Your task to perform on an android device: Open Reddit.com Image 0: 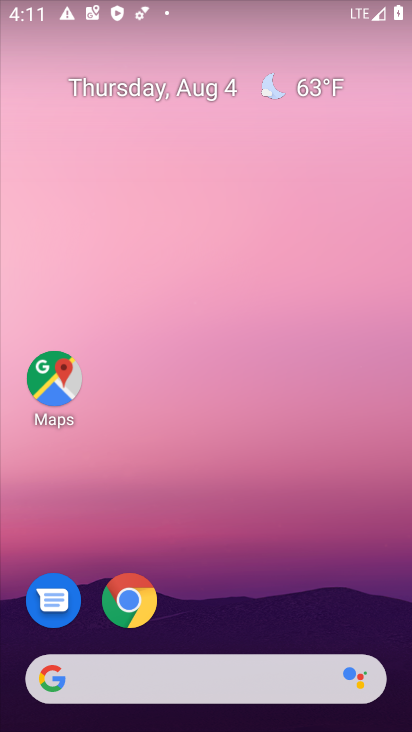
Step 0: drag from (313, 483) to (357, 109)
Your task to perform on an android device: Open Reddit.com Image 1: 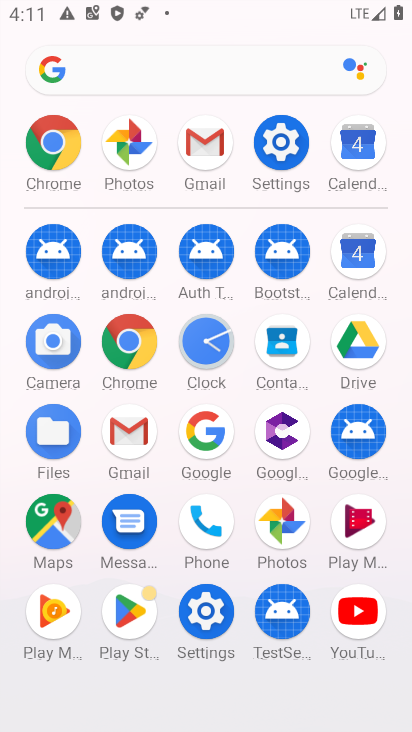
Step 1: click (130, 338)
Your task to perform on an android device: Open Reddit.com Image 2: 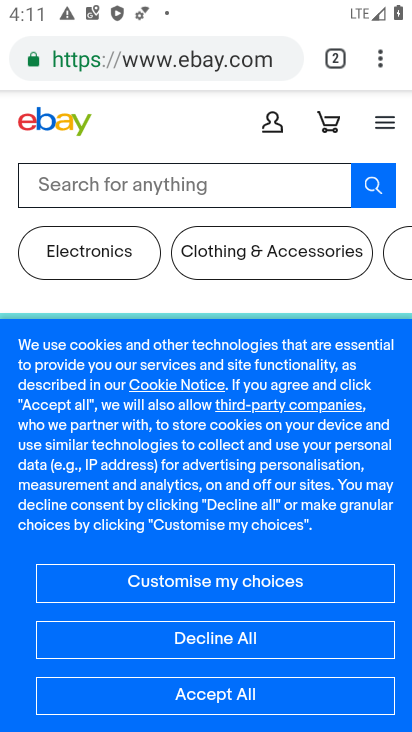
Step 2: click (231, 38)
Your task to perform on an android device: Open Reddit.com Image 3: 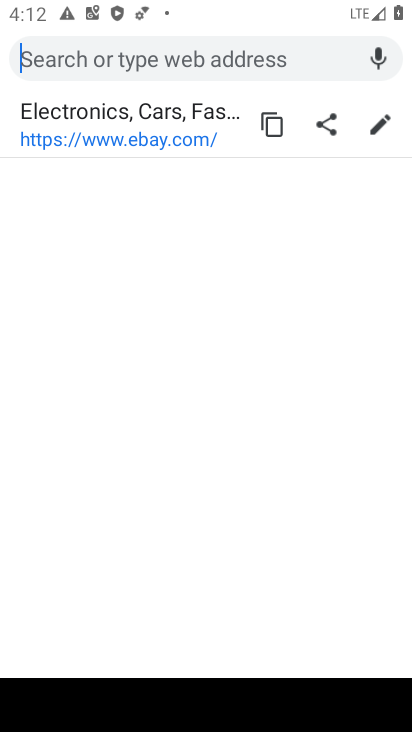
Step 3: type "reddit.com"
Your task to perform on an android device: Open Reddit.com Image 4: 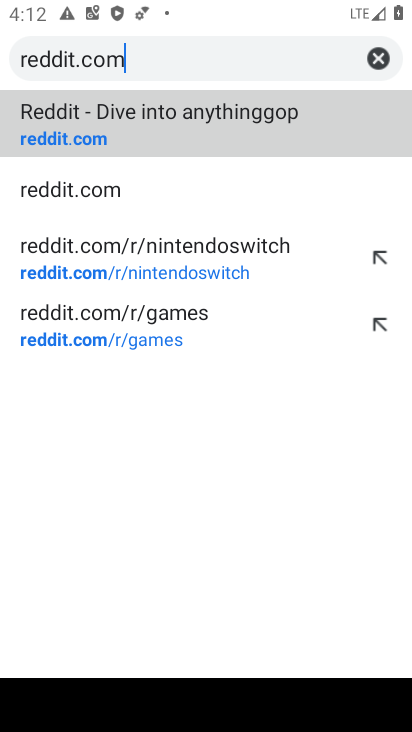
Step 4: click (113, 142)
Your task to perform on an android device: Open Reddit.com Image 5: 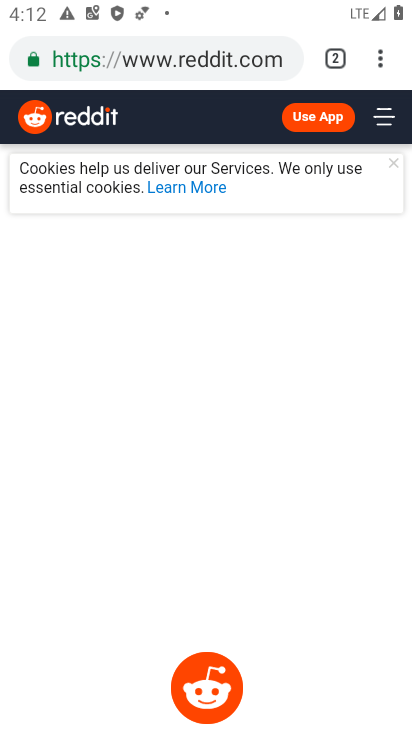
Step 5: task complete